Your task to perform on an android device: What's the weather going to be tomorrow? Image 0: 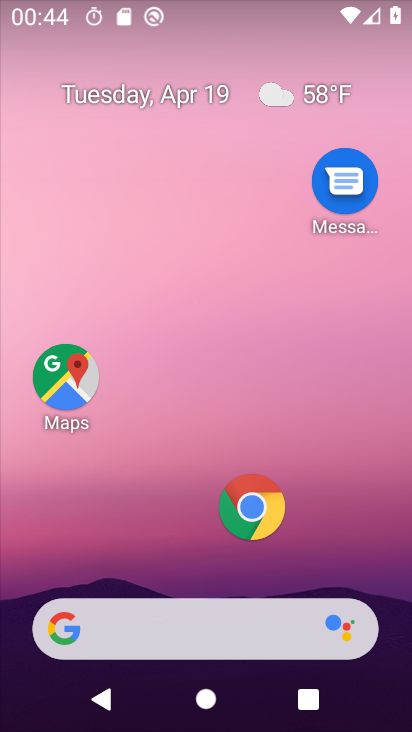
Step 0: click (307, 94)
Your task to perform on an android device: What's the weather going to be tomorrow? Image 1: 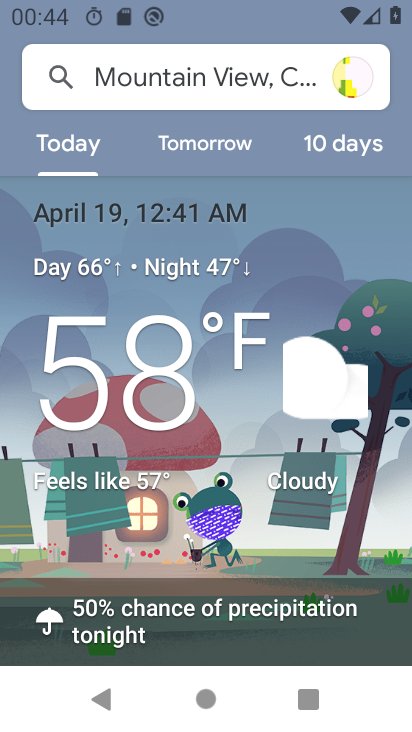
Step 1: click (225, 148)
Your task to perform on an android device: What's the weather going to be tomorrow? Image 2: 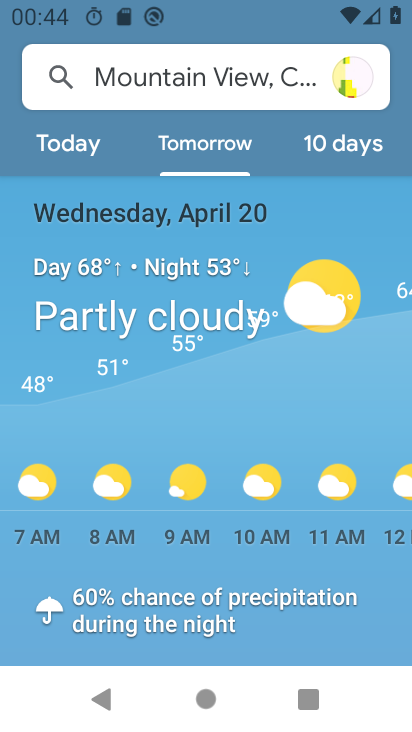
Step 2: task complete